Your task to perform on an android device: check storage Image 0: 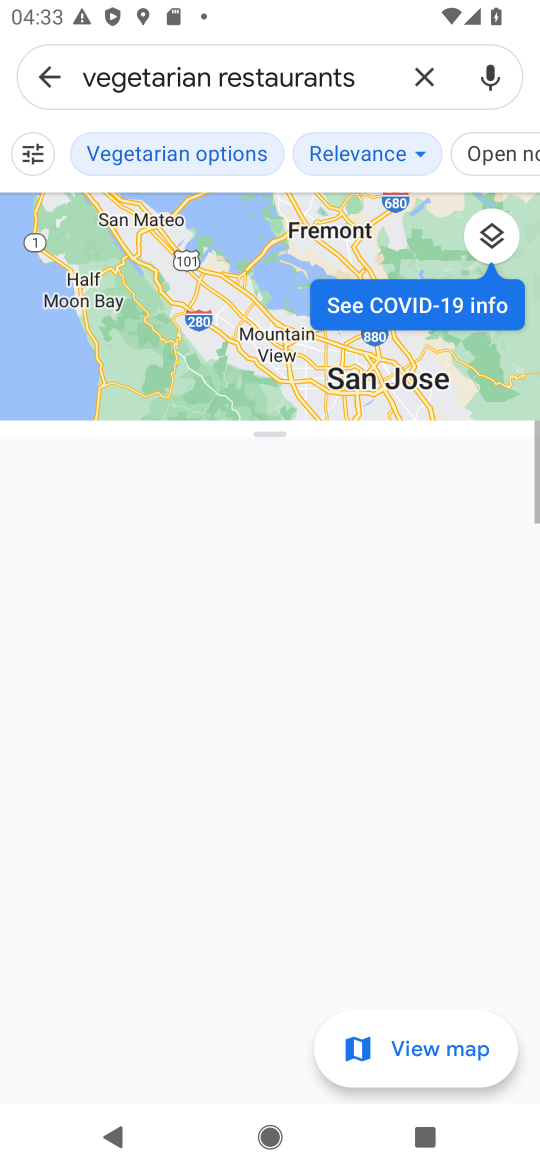
Step 0: press home button
Your task to perform on an android device: check storage Image 1: 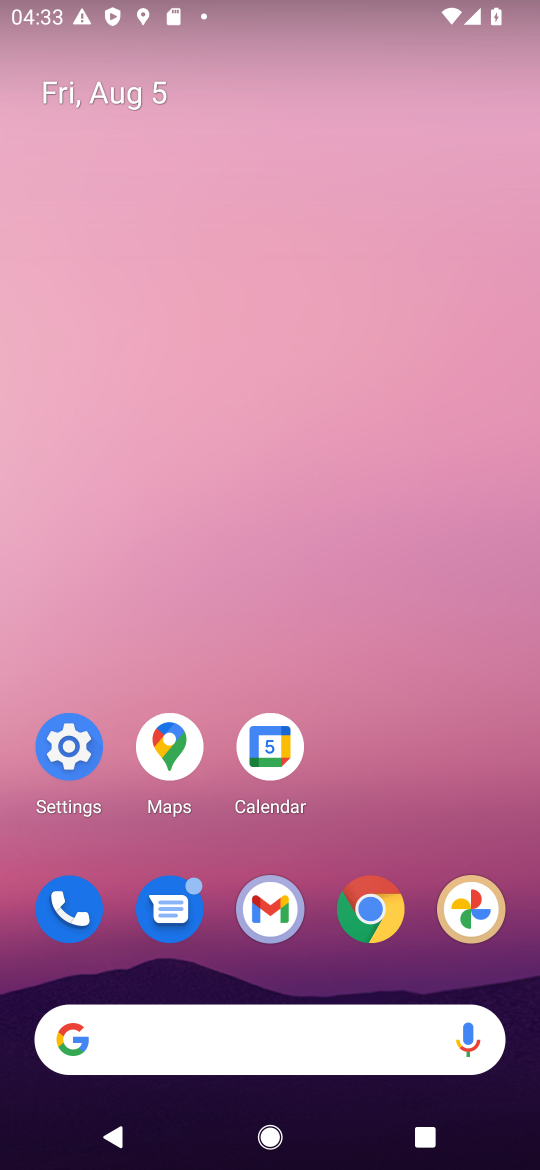
Step 1: click (73, 748)
Your task to perform on an android device: check storage Image 2: 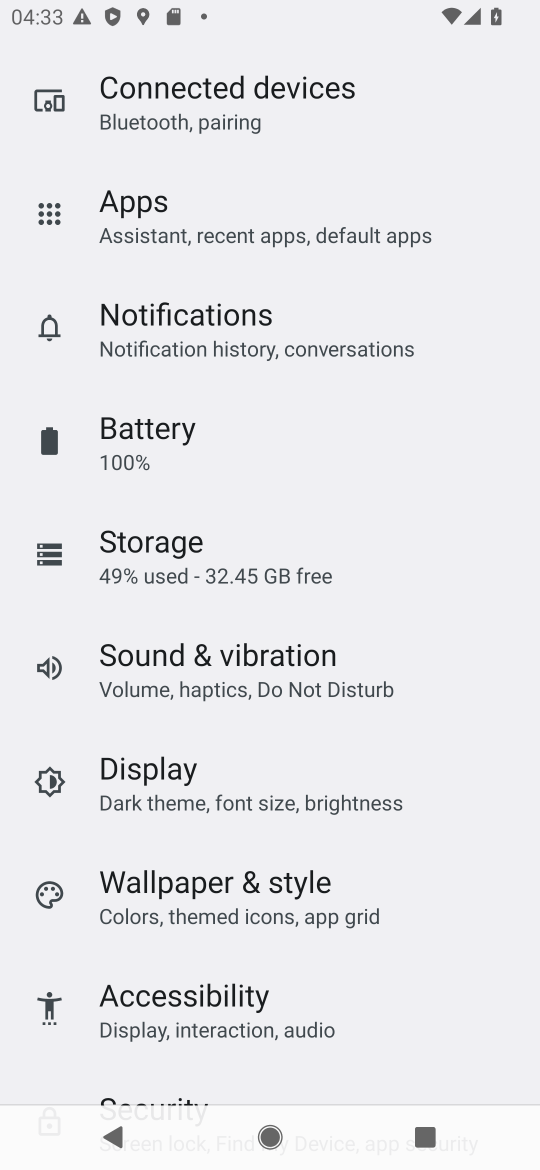
Step 2: click (192, 539)
Your task to perform on an android device: check storage Image 3: 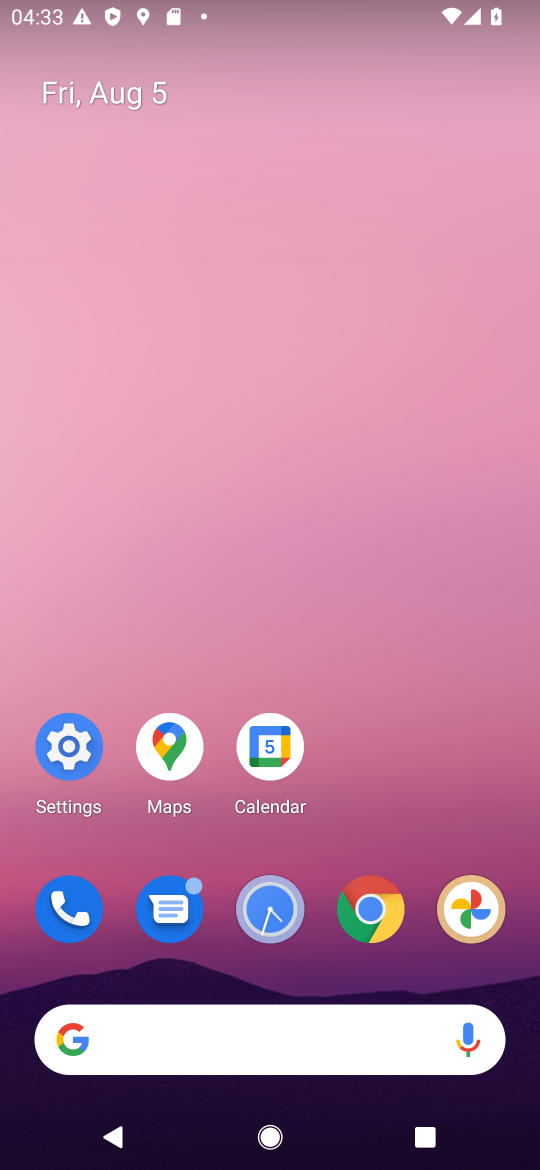
Step 3: click (66, 753)
Your task to perform on an android device: check storage Image 4: 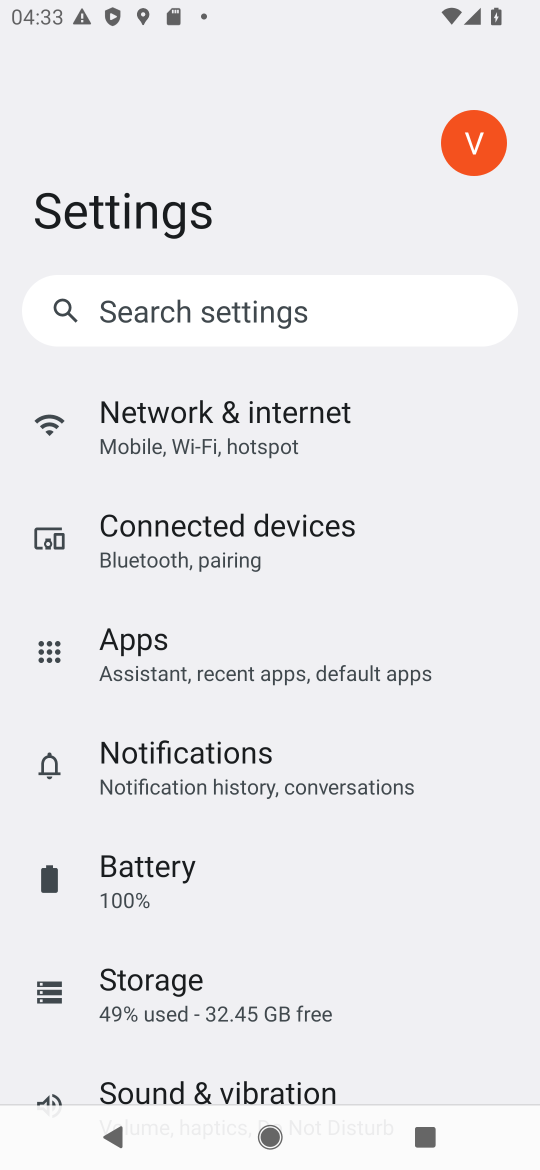
Step 4: click (153, 969)
Your task to perform on an android device: check storage Image 5: 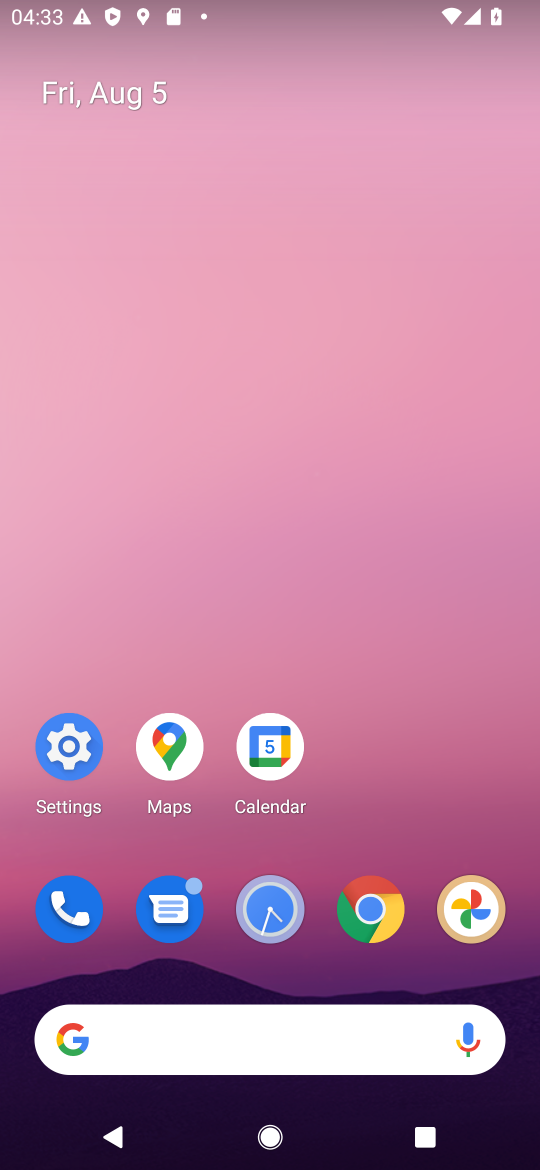
Step 5: task complete